Your task to perform on an android device: change the upload size in google photos Image 0: 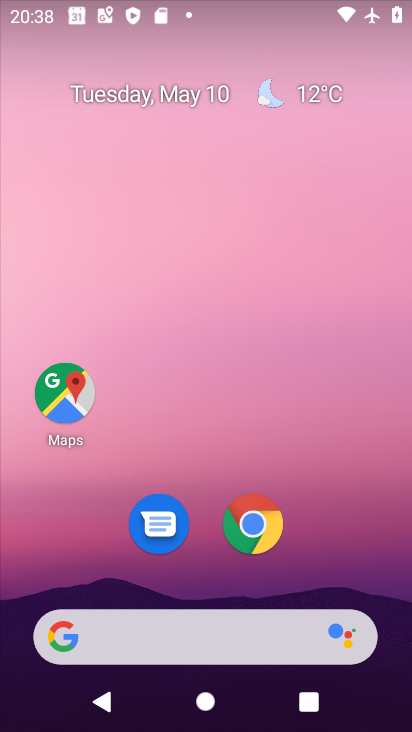
Step 0: drag from (343, 525) to (295, 51)
Your task to perform on an android device: change the upload size in google photos Image 1: 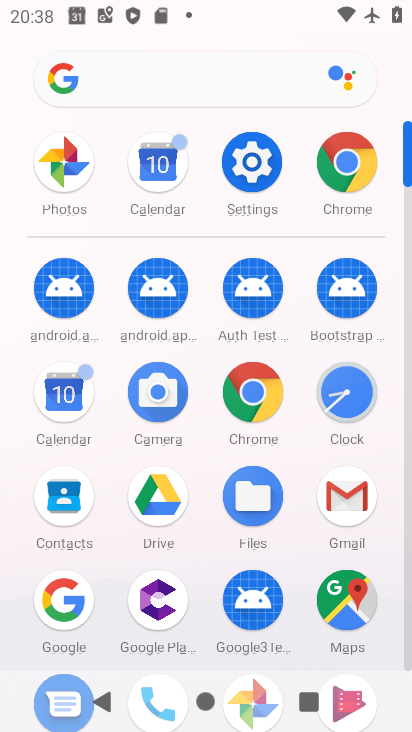
Step 1: click (70, 156)
Your task to perform on an android device: change the upload size in google photos Image 2: 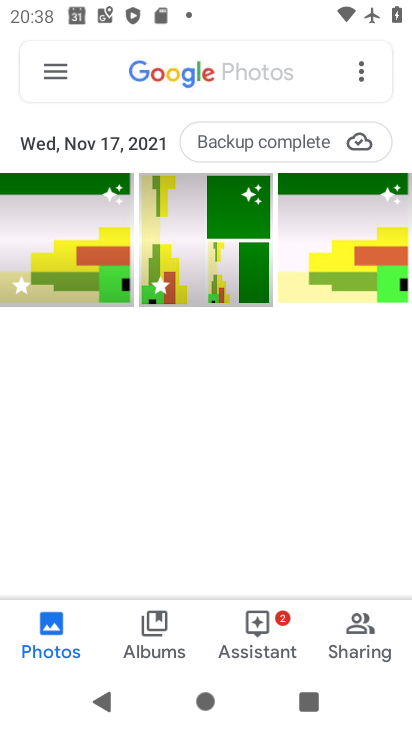
Step 2: click (53, 73)
Your task to perform on an android device: change the upload size in google photos Image 3: 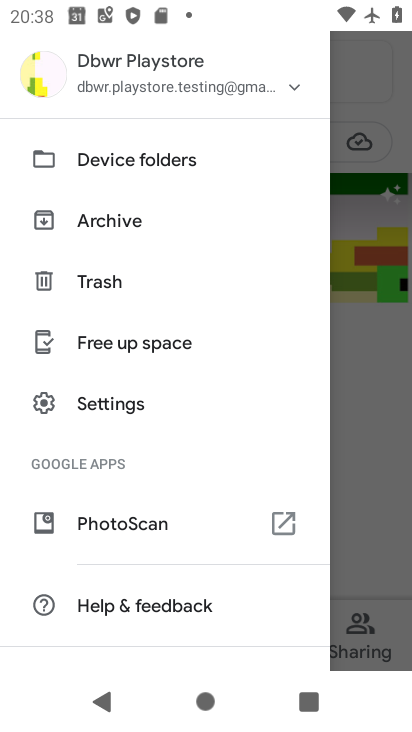
Step 3: click (81, 391)
Your task to perform on an android device: change the upload size in google photos Image 4: 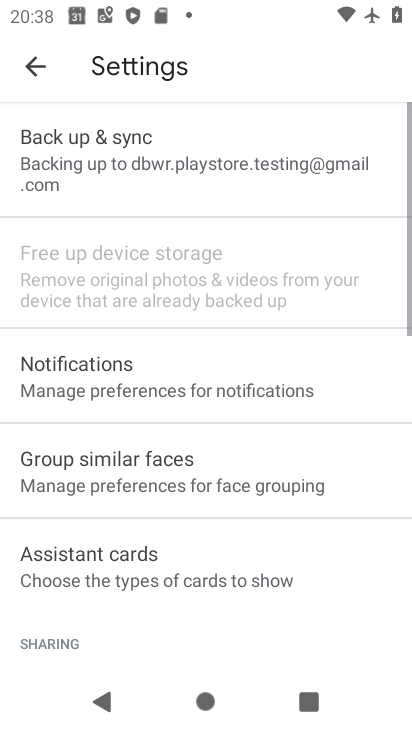
Step 4: click (160, 130)
Your task to perform on an android device: change the upload size in google photos Image 5: 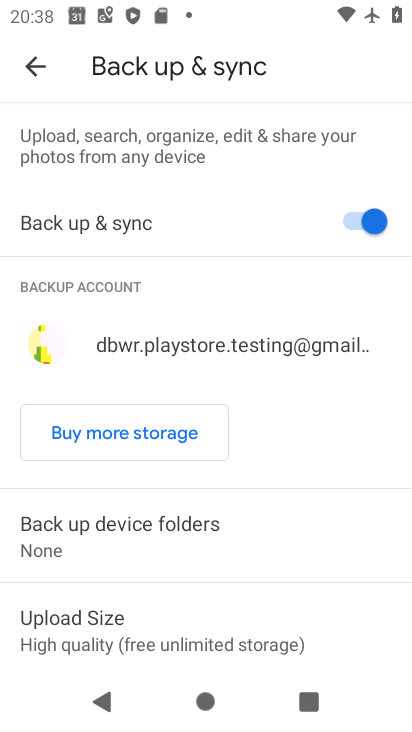
Step 5: click (152, 621)
Your task to perform on an android device: change the upload size in google photos Image 6: 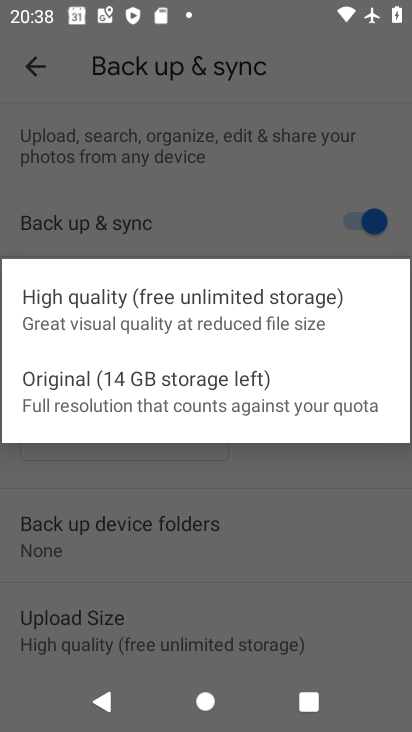
Step 6: click (223, 381)
Your task to perform on an android device: change the upload size in google photos Image 7: 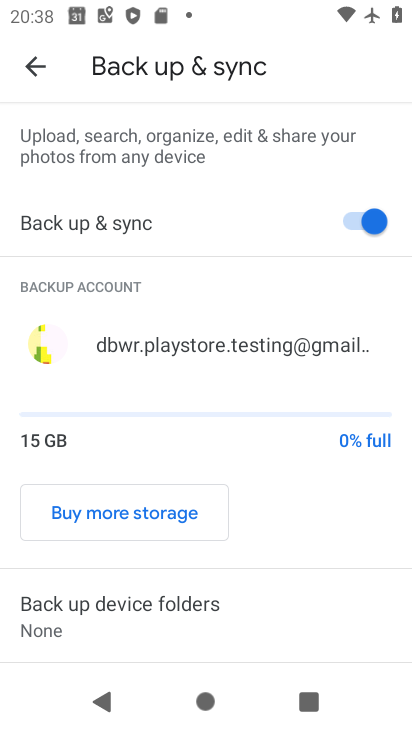
Step 7: task complete